Your task to perform on an android device: Is it going to rain this weekend? Image 0: 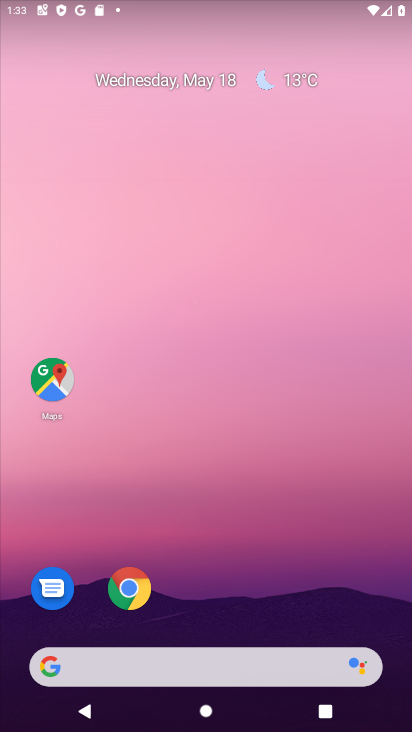
Step 0: drag from (192, 592) to (233, 195)
Your task to perform on an android device: Is it going to rain this weekend? Image 1: 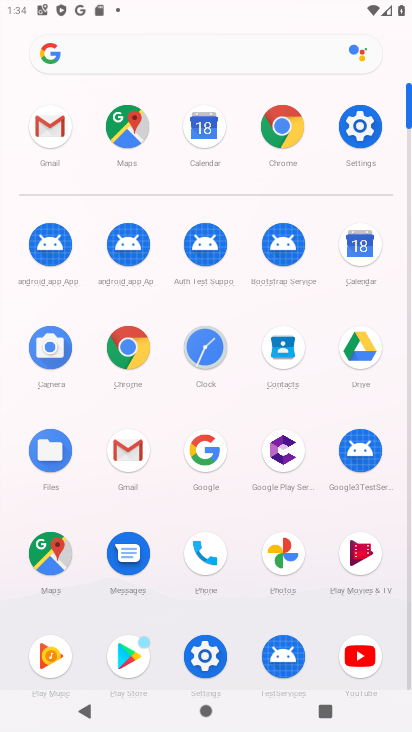
Step 1: click (124, 47)
Your task to perform on an android device: Is it going to rain this weekend? Image 2: 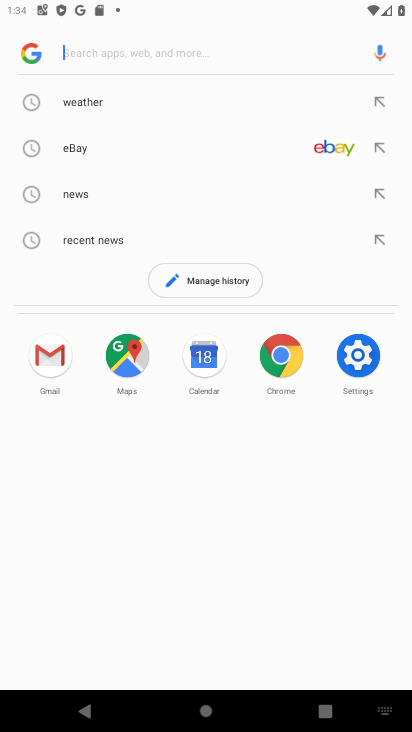
Step 2: type "rain this weekend"
Your task to perform on an android device: Is it going to rain this weekend? Image 3: 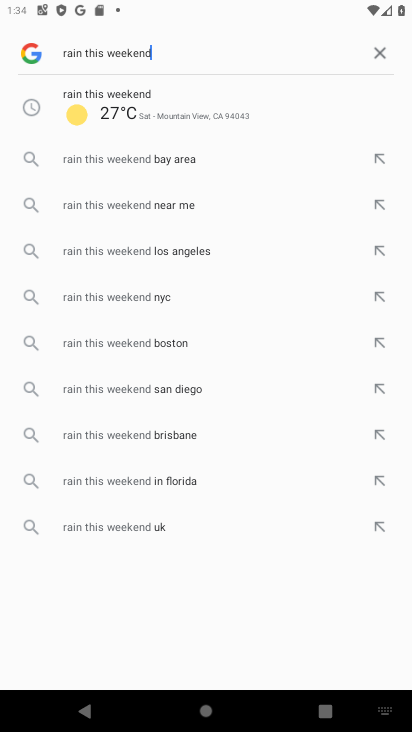
Step 3: click (129, 98)
Your task to perform on an android device: Is it going to rain this weekend? Image 4: 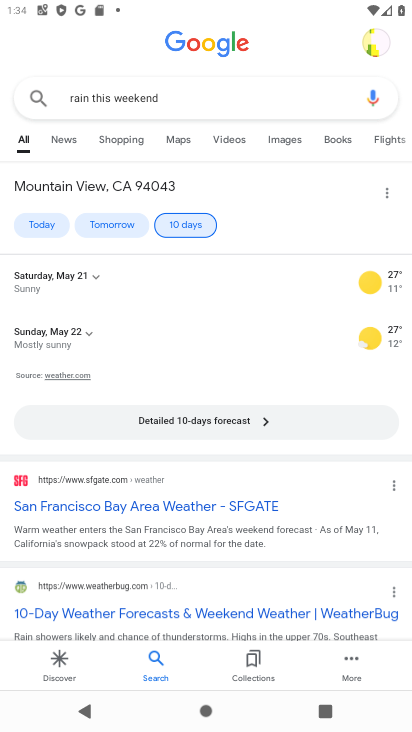
Step 4: task complete